Your task to perform on an android device: What is the news today? Image 0: 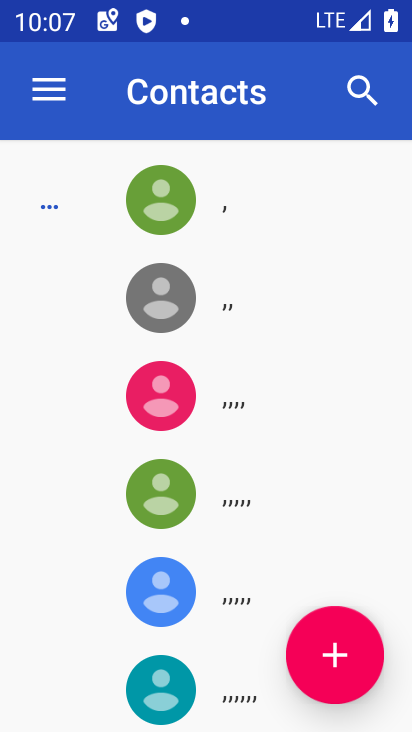
Step 0: drag from (270, 607) to (316, 424)
Your task to perform on an android device: What is the news today? Image 1: 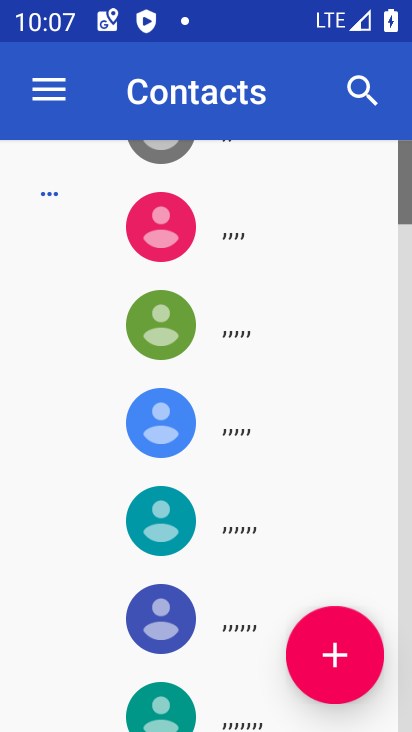
Step 1: press home button
Your task to perform on an android device: What is the news today? Image 2: 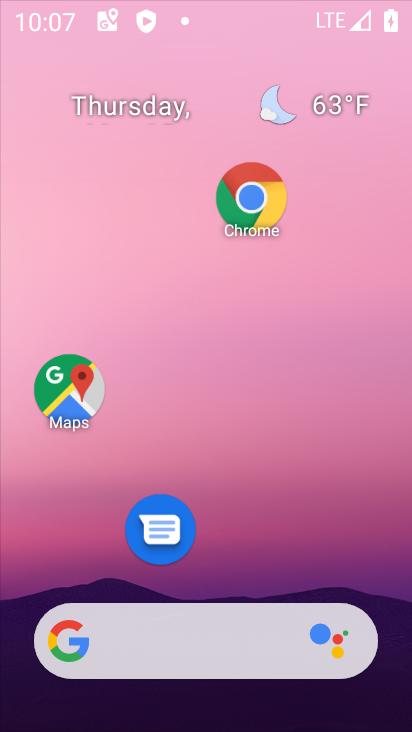
Step 2: drag from (226, 588) to (302, 33)
Your task to perform on an android device: What is the news today? Image 3: 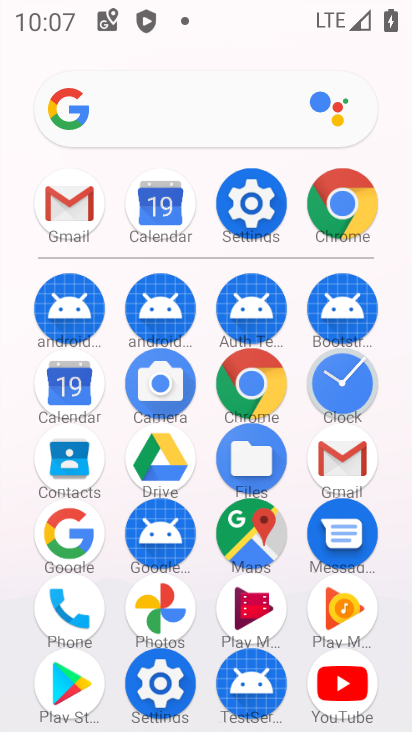
Step 3: drag from (233, 523) to (342, 200)
Your task to perform on an android device: What is the news today? Image 4: 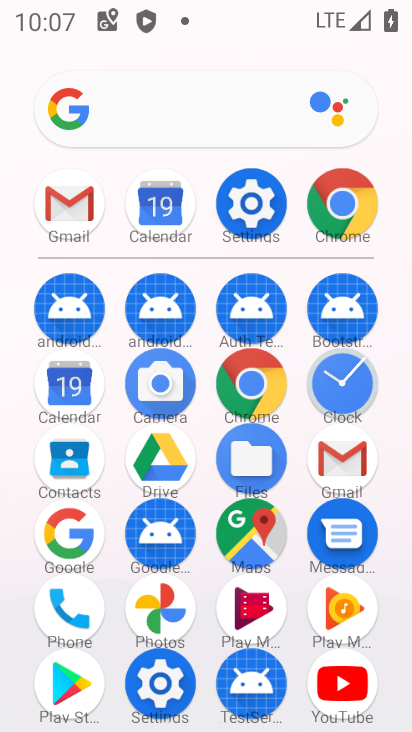
Step 4: click (64, 545)
Your task to perform on an android device: What is the news today? Image 5: 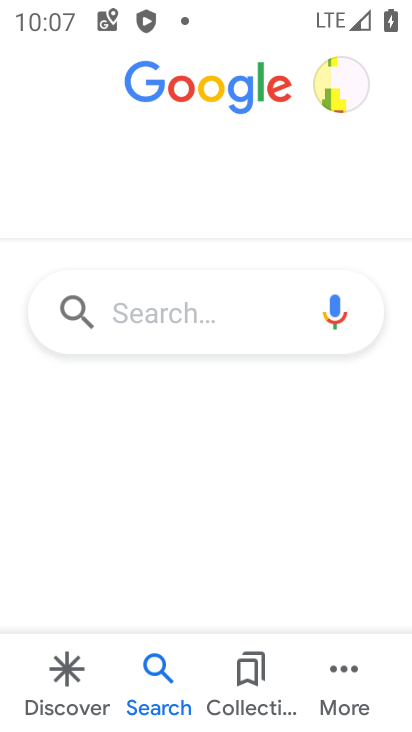
Step 5: click (185, 314)
Your task to perform on an android device: What is the news today? Image 6: 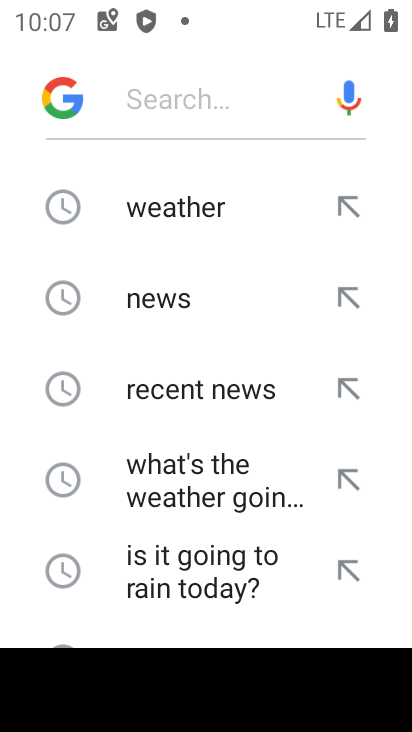
Step 6: click (209, 302)
Your task to perform on an android device: What is the news today? Image 7: 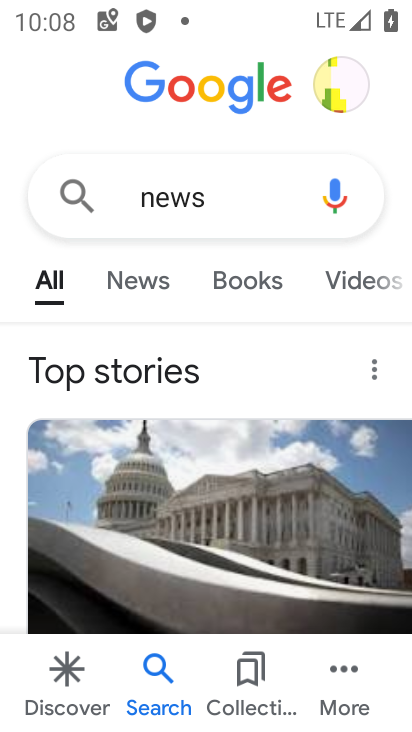
Step 7: click (124, 296)
Your task to perform on an android device: What is the news today? Image 8: 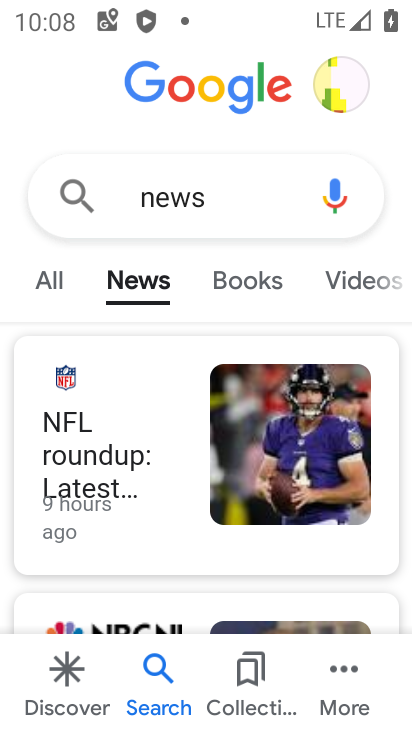
Step 8: task complete